Your task to perform on an android device: install app "Fetch Rewards" Image 0: 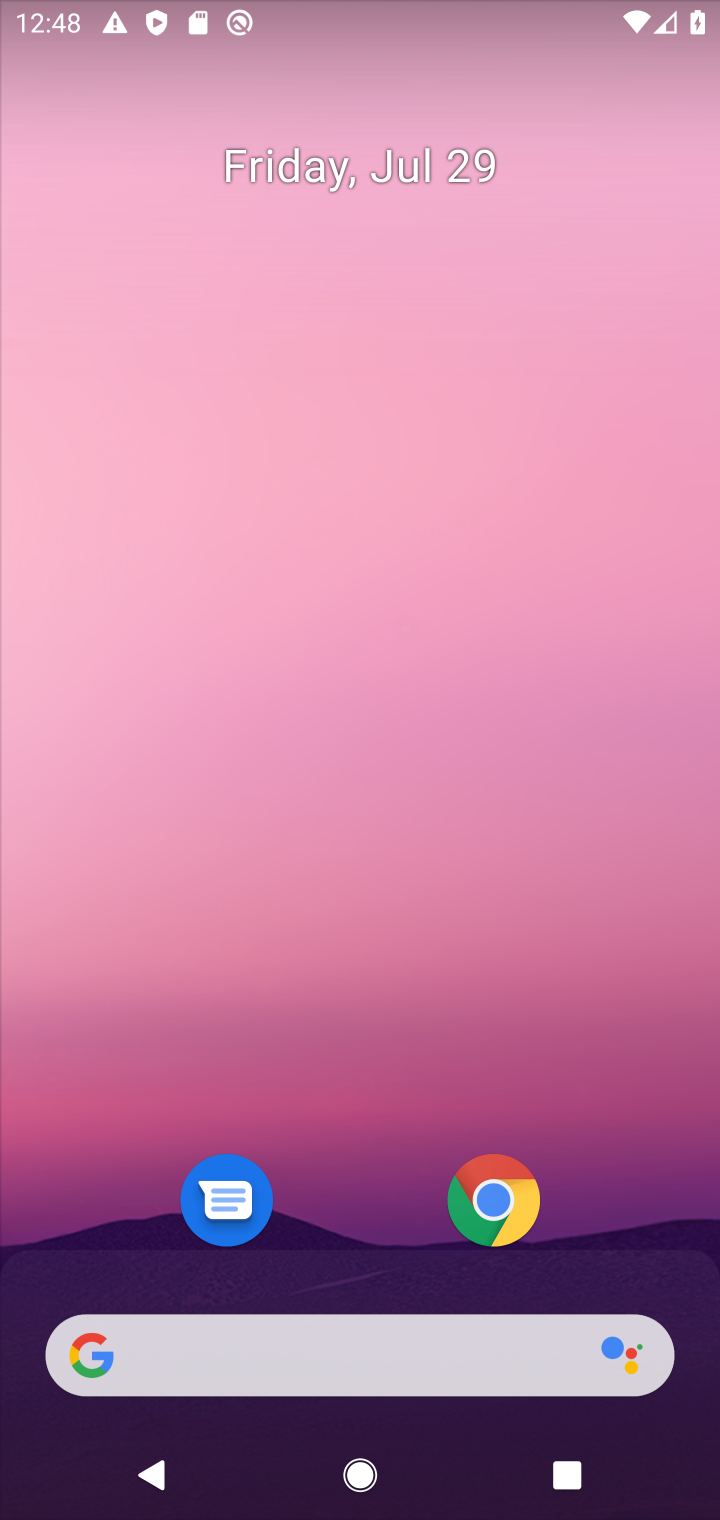
Step 0: drag from (683, 1171) to (613, 188)
Your task to perform on an android device: install app "Fetch Rewards" Image 1: 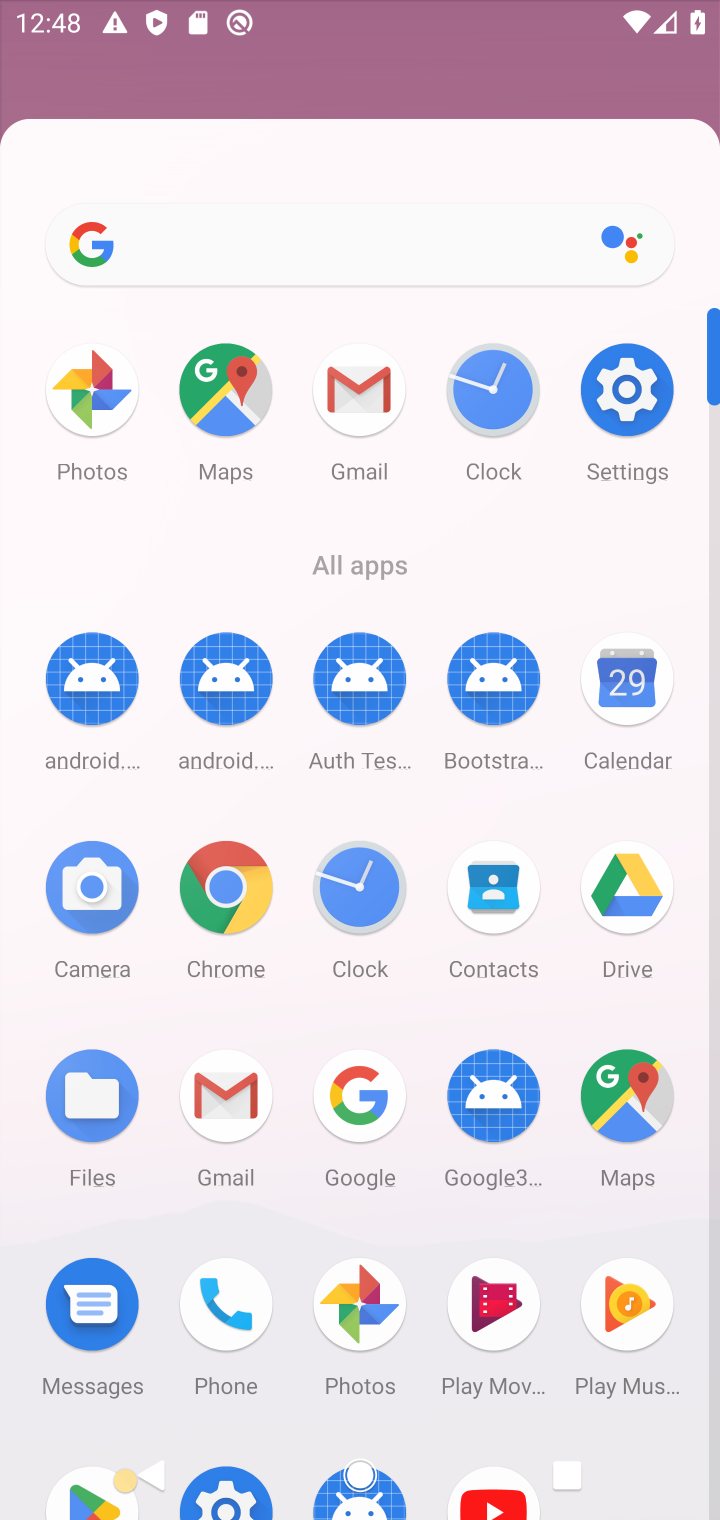
Step 1: press home button
Your task to perform on an android device: install app "Fetch Rewards" Image 2: 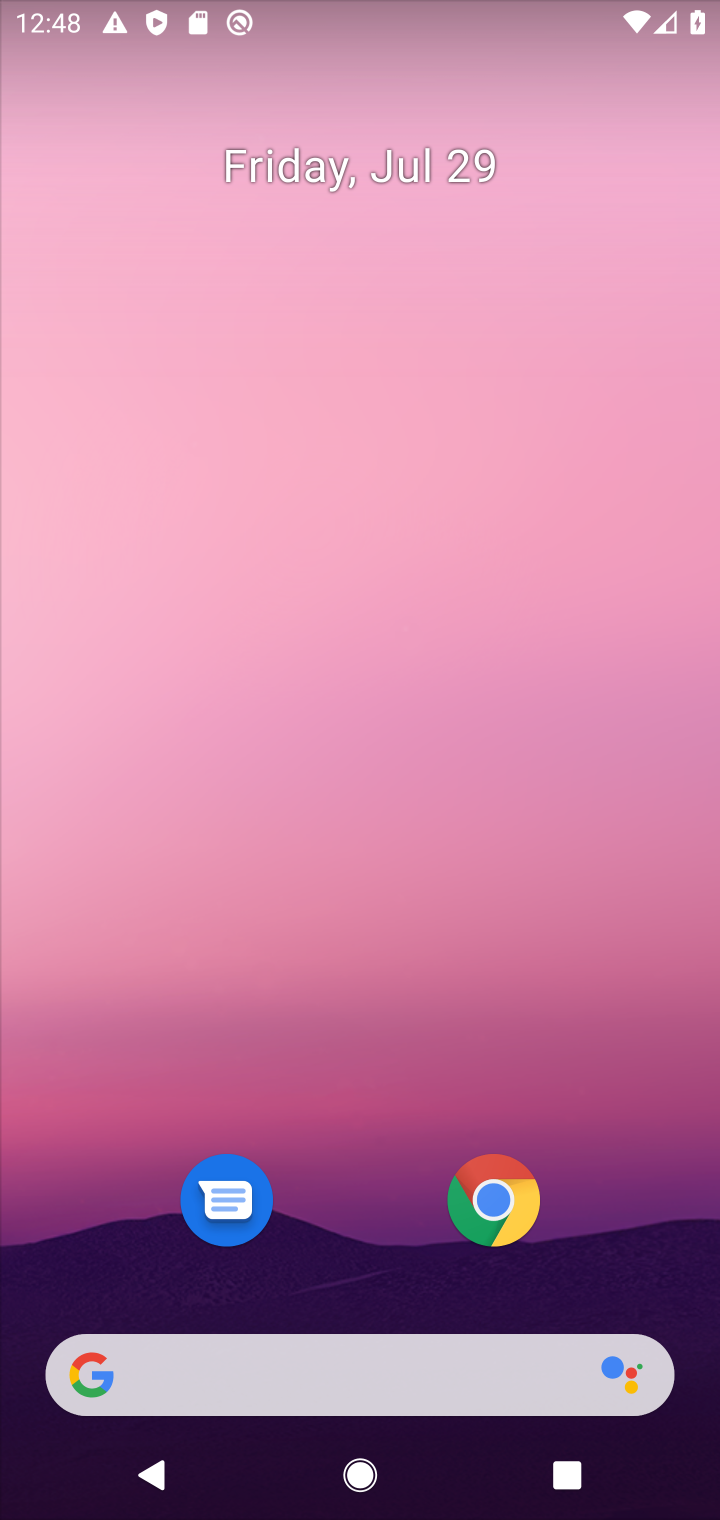
Step 2: drag from (632, 1195) to (617, 6)
Your task to perform on an android device: install app "Fetch Rewards" Image 3: 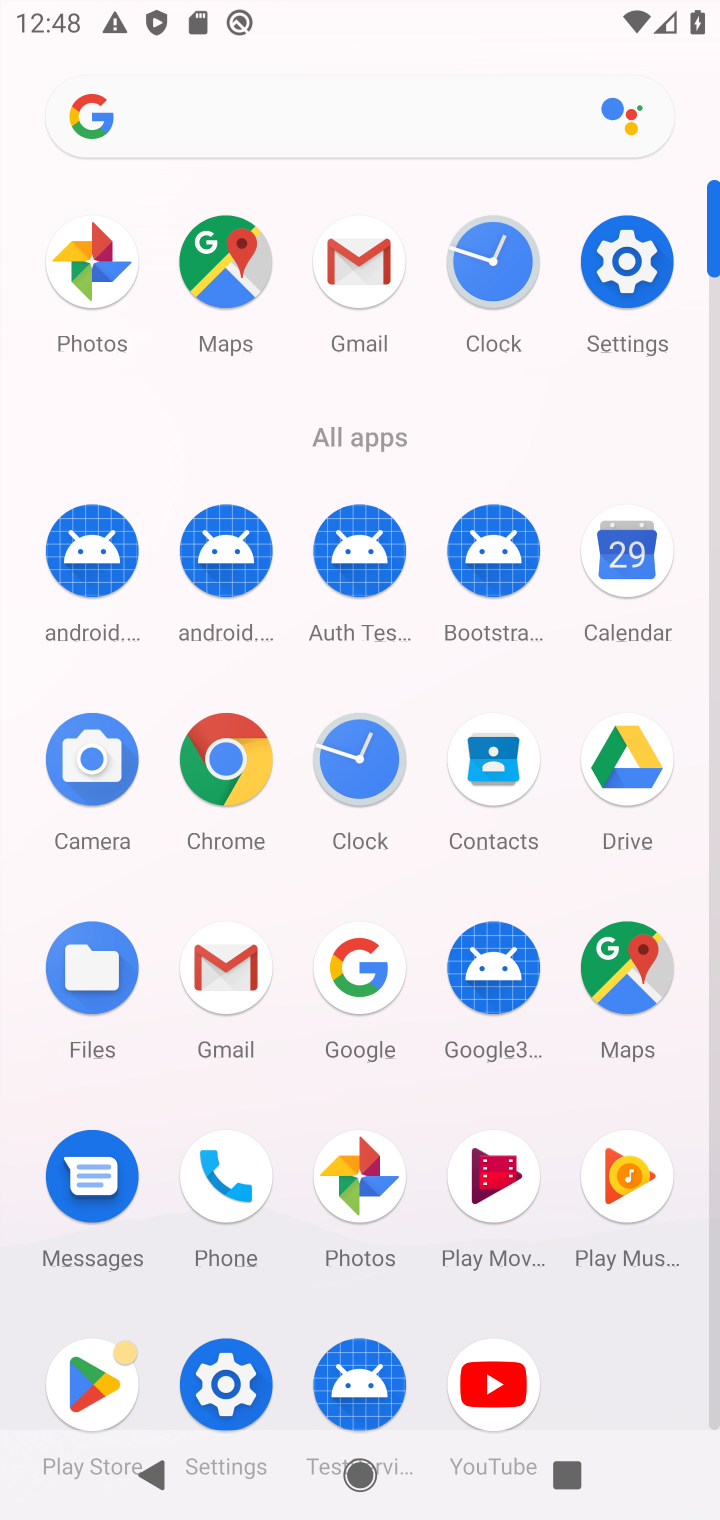
Step 3: click (110, 1384)
Your task to perform on an android device: install app "Fetch Rewards" Image 4: 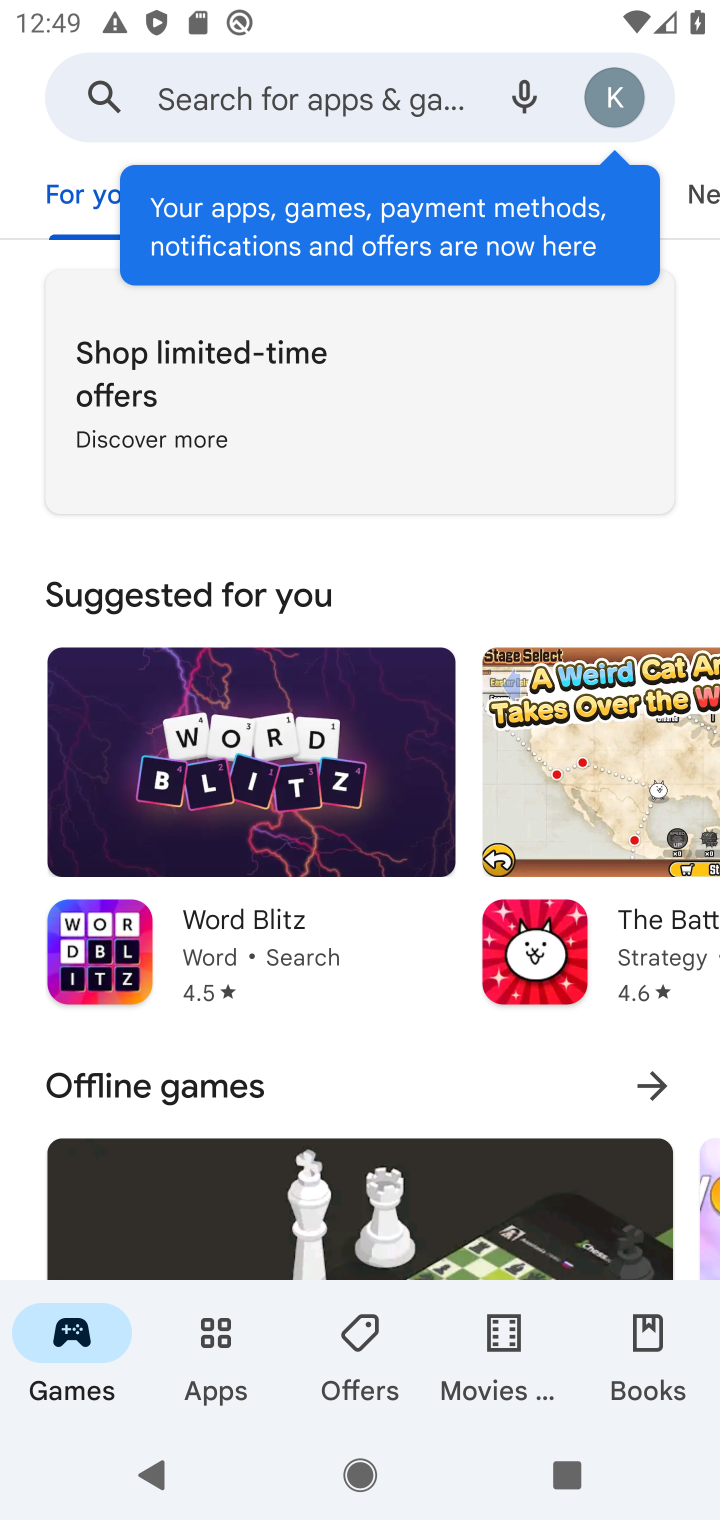
Step 4: click (455, 99)
Your task to perform on an android device: install app "Fetch Rewards" Image 5: 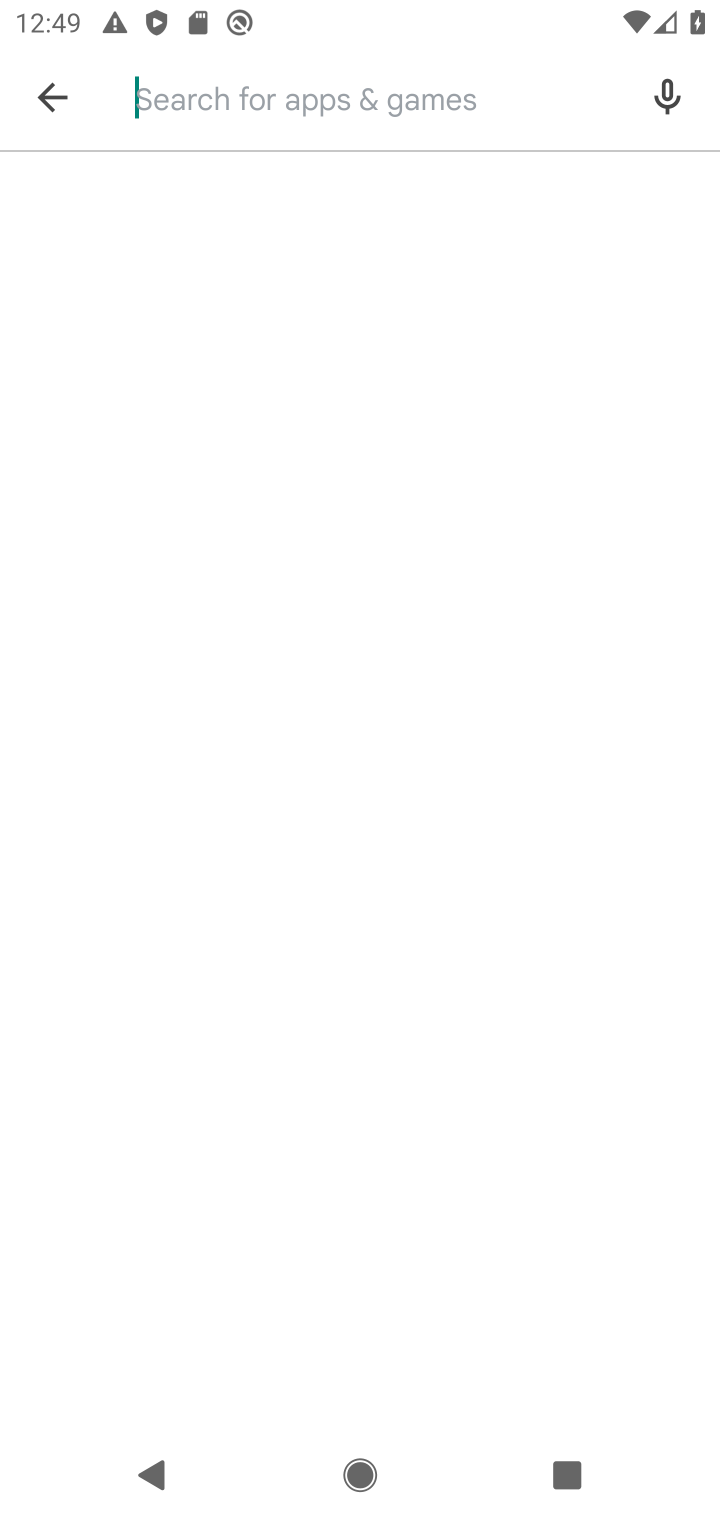
Step 5: click (381, 90)
Your task to perform on an android device: install app "Fetch Rewards" Image 6: 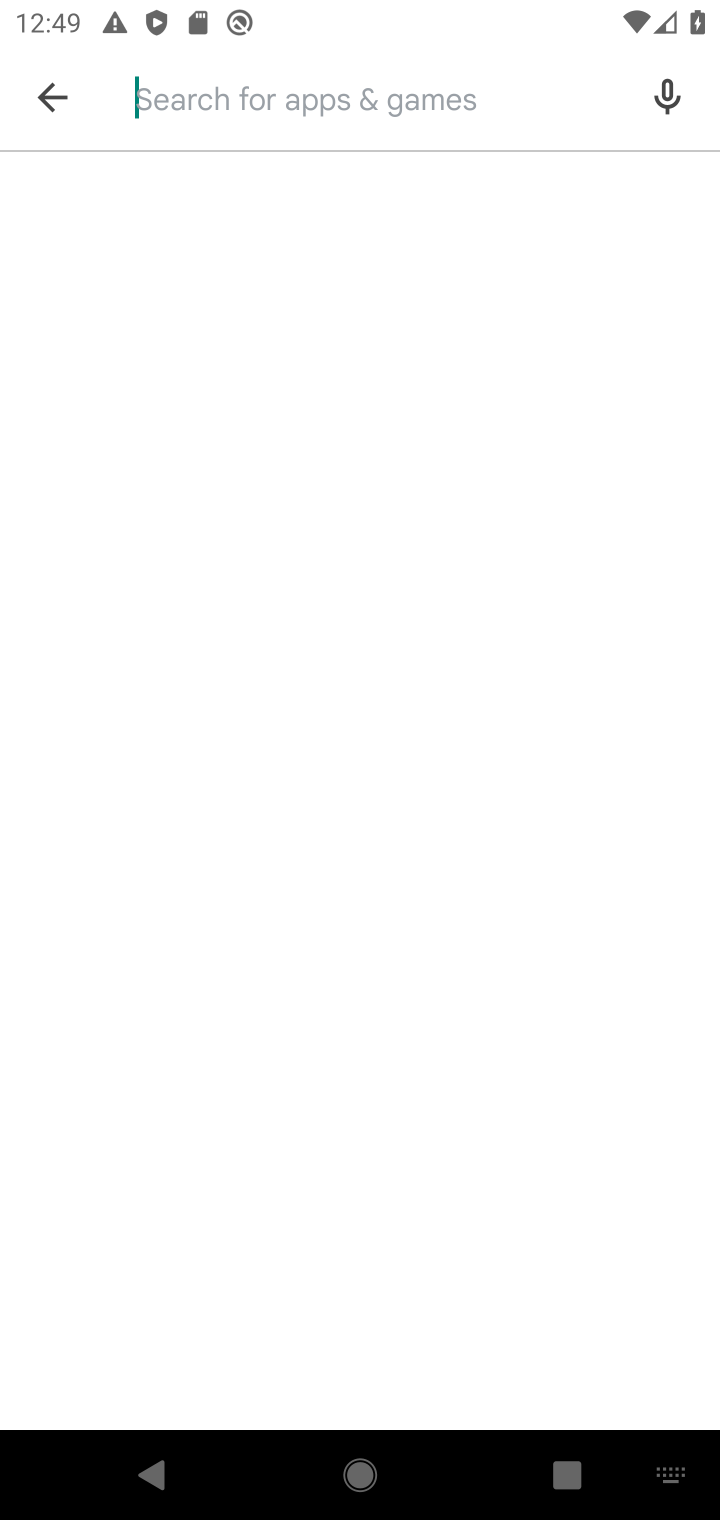
Step 6: type "Fetch Rewards"
Your task to perform on an android device: install app "Fetch Rewards" Image 7: 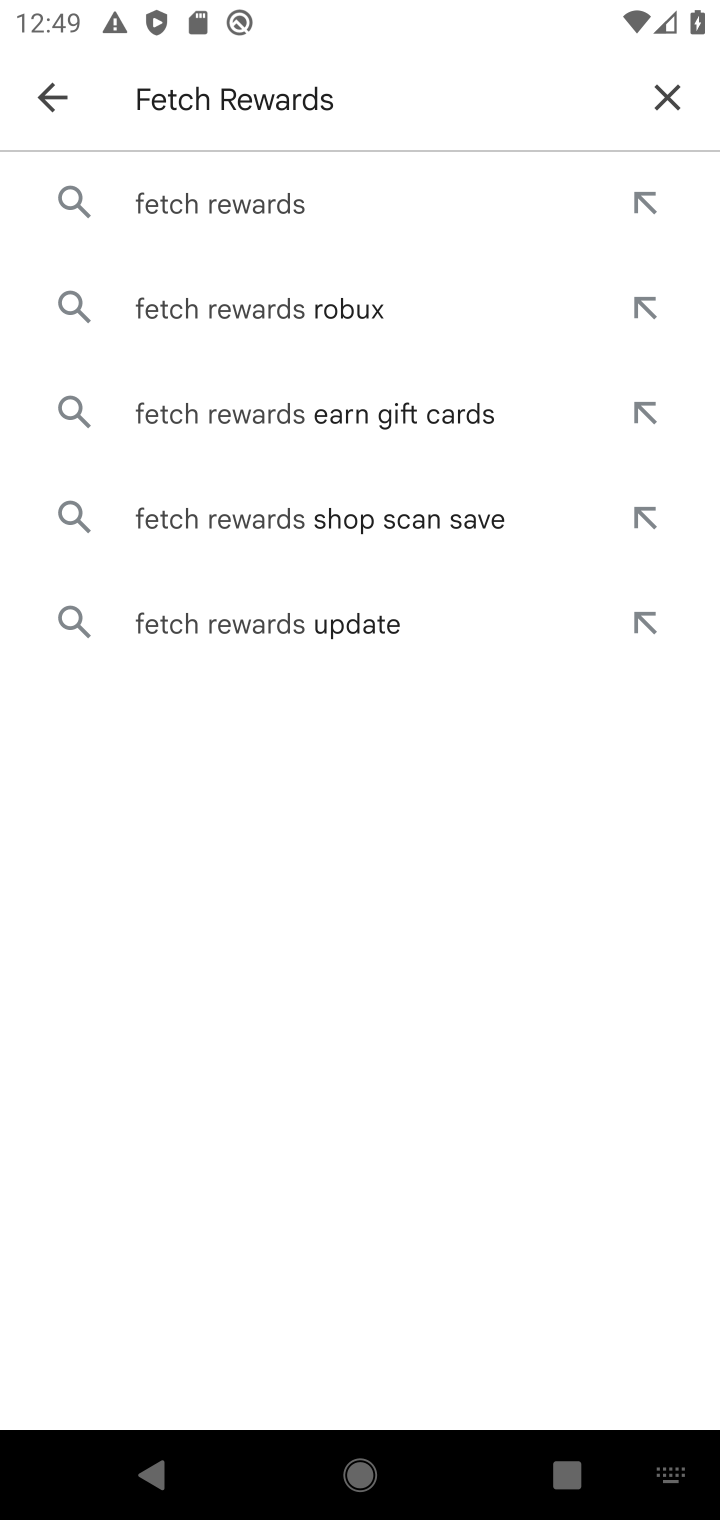
Step 7: press enter
Your task to perform on an android device: install app "Fetch Rewards" Image 8: 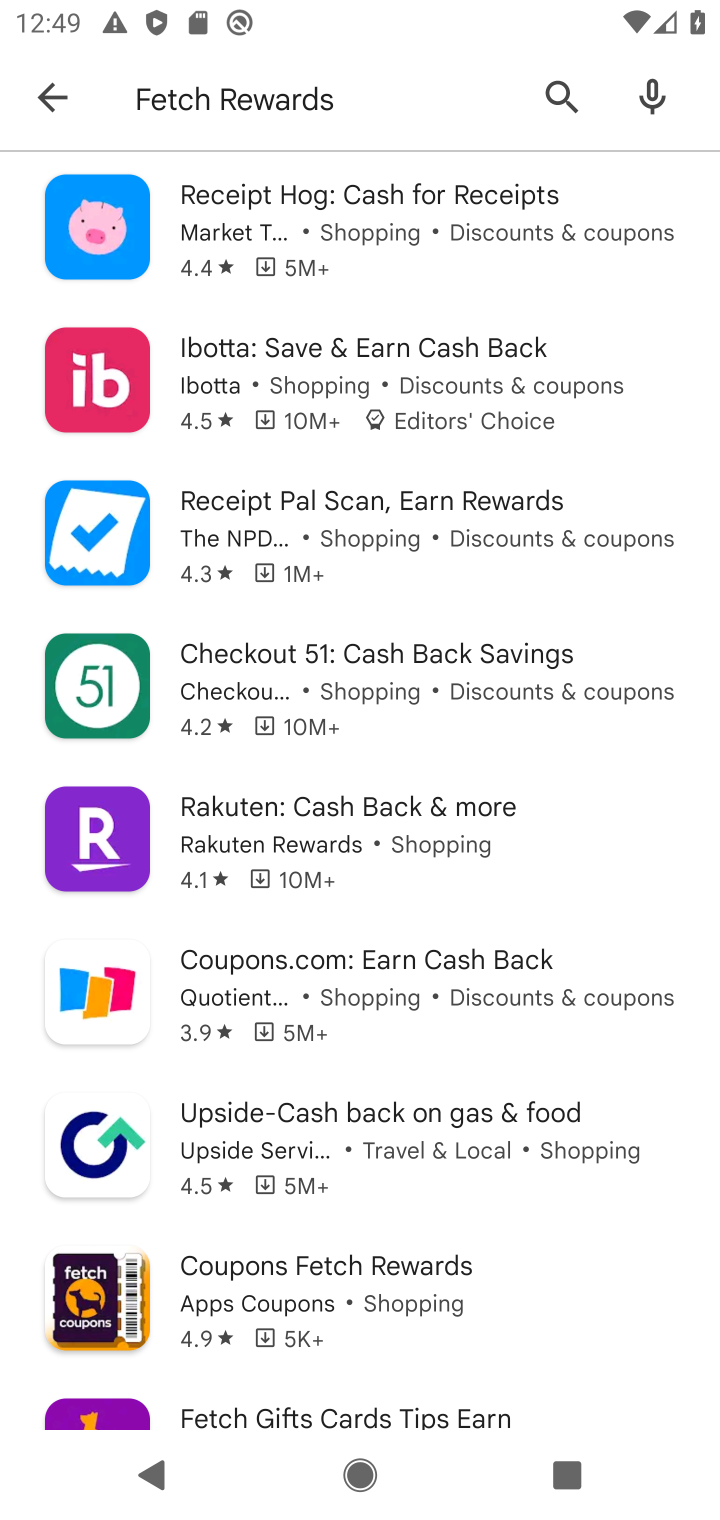
Step 8: task complete